Your task to perform on an android device: Go to Reddit.com Image 0: 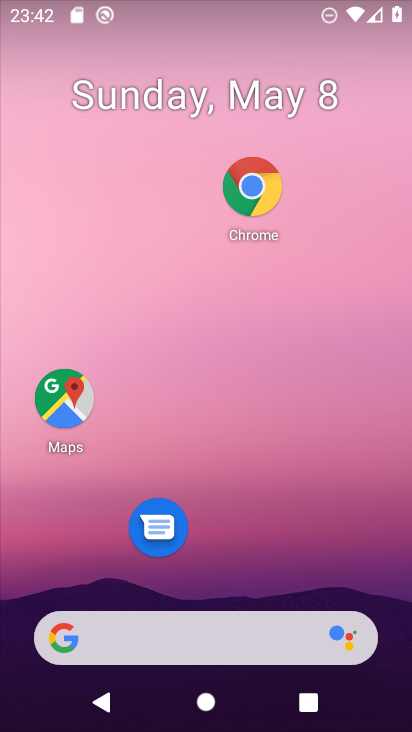
Step 0: click (281, 275)
Your task to perform on an android device: Go to Reddit.com Image 1: 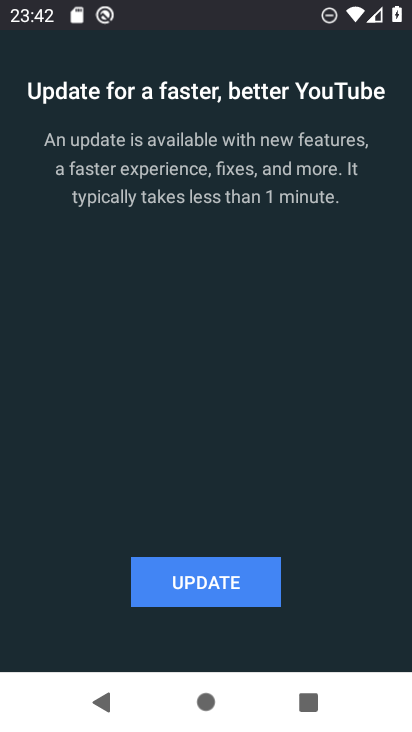
Step 1: press home button
Your task to perform on an android device: Go to Reddit.com Image 2: 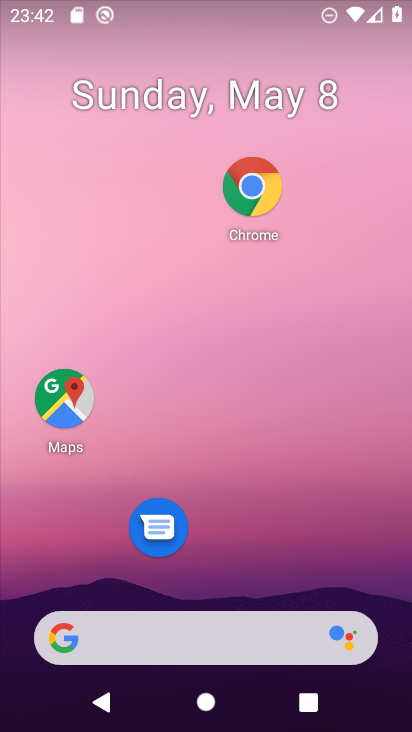
Step 2: drag from (278, 554) to (321, 223)
Your task to perform on an android device: Go to Reddit.com Image 3: 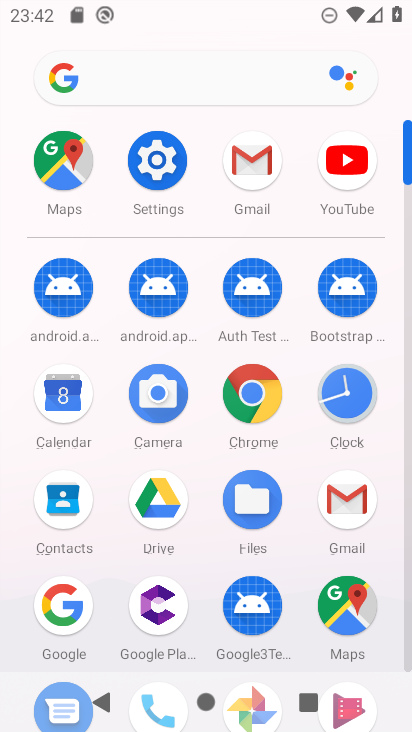
Step 3: click (243, 368)
Your task to perform on an android device: Go to Reddit.com Image 4: 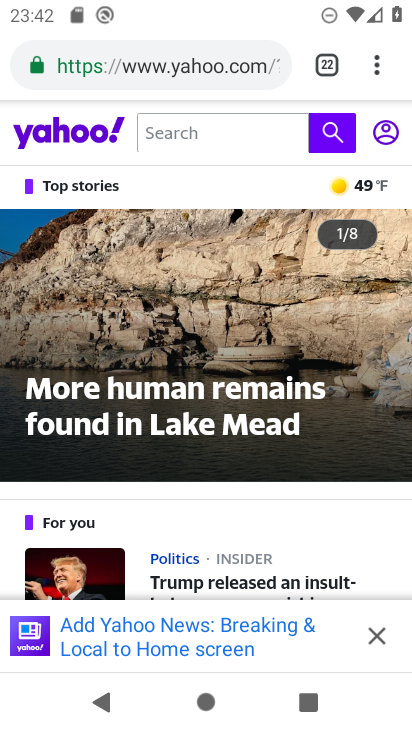
Step 4: click (371, 64)
Your task to perform on an android device: Go to Reddit.com Image 5: 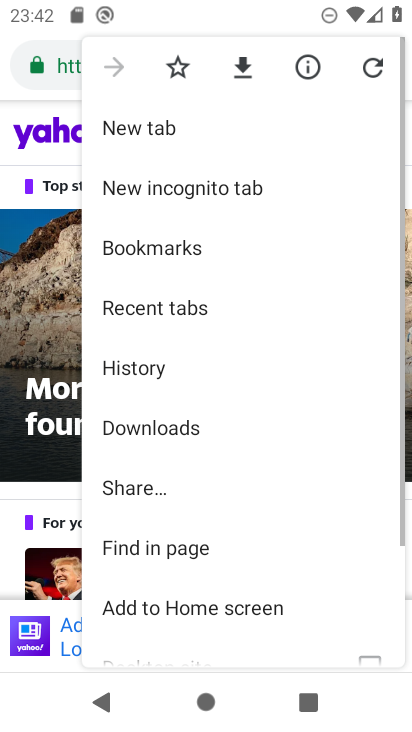
Step 5: click (201, 126)
Your task to perform on an android device: Go to Reddit.com Image 6: 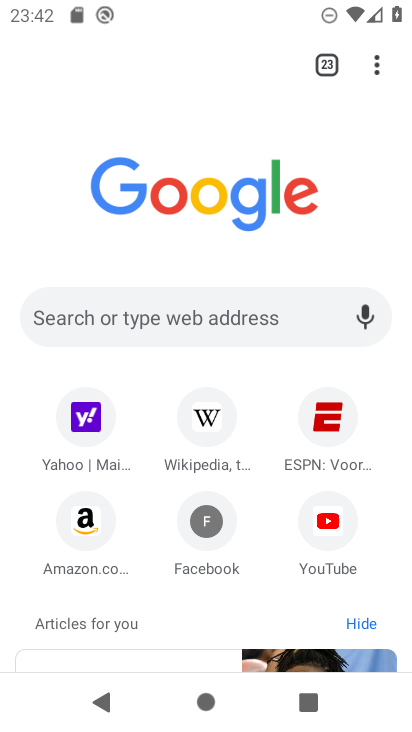
Step 6: click (178, 305)
Your task to perform on an android device: Go to Reddit.com Image 7: 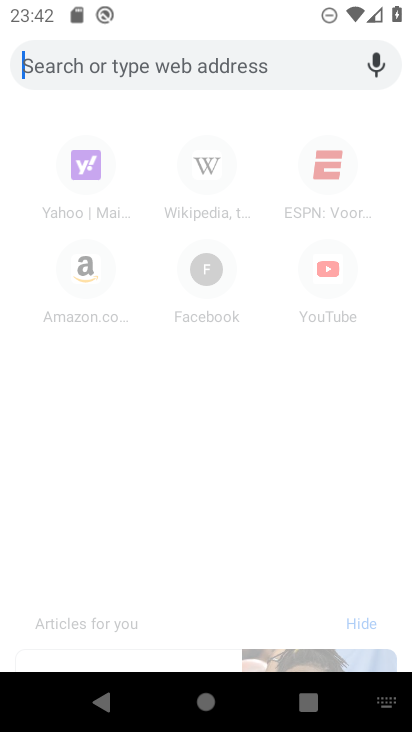
Step 7: type "Reddit.com"
Your task to perform on an android device: Go to Reddit.com Image 8: 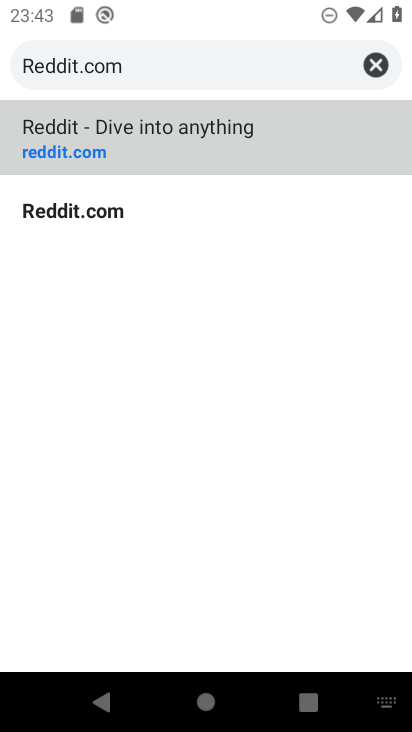
Step 8: click (117, 201)
Your task to perform on an android device: Go to Reddit.com Image 9: 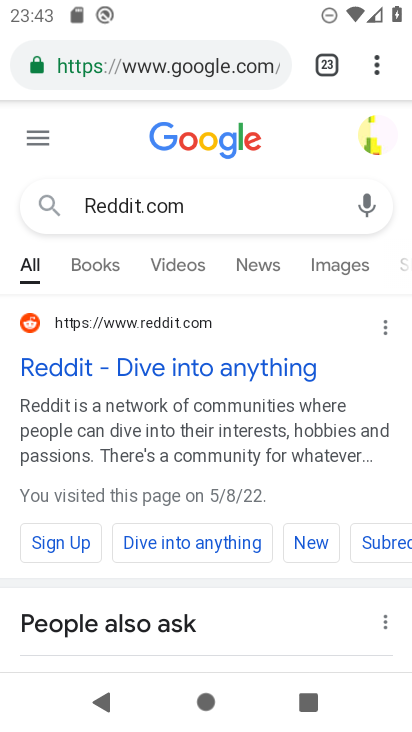
Step 9: task complete